Your task to perform on an android device: Go to Google maps Image 0: 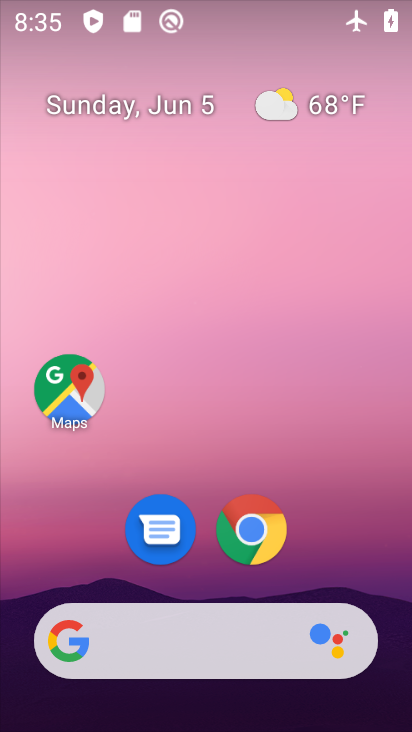
Step 0: click (58, 401)
Your task to perform on an android device: Go to Google maps Image 1: 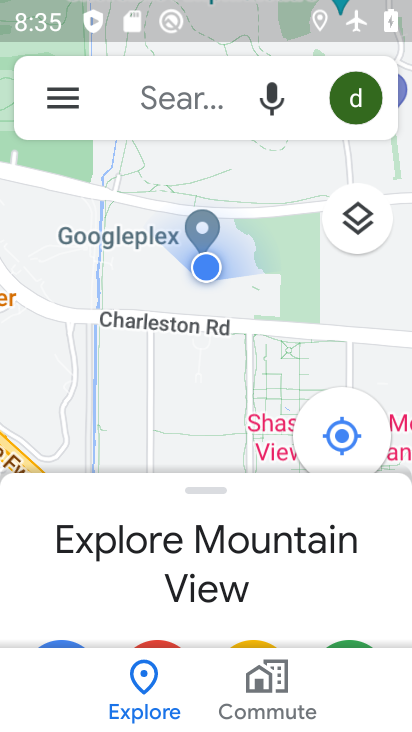
Step 1: task complete